Your task to perform on an android device: toggle improve location accuracy Image 0: 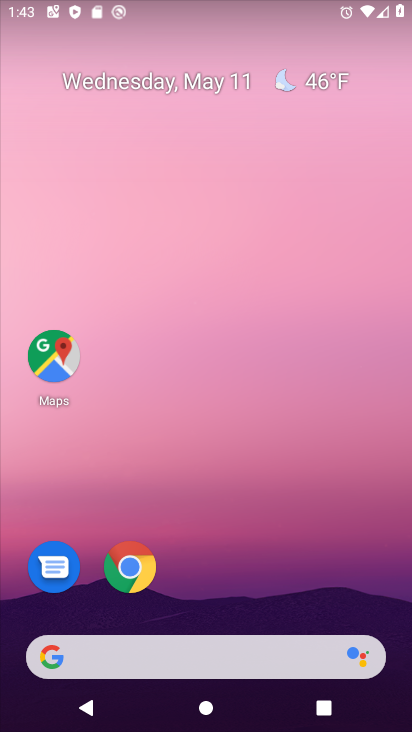
Step 0: drag from (224, 635) to (373, 15)
Your task to perform on an android device: toggle improve location accuracy Image 1: 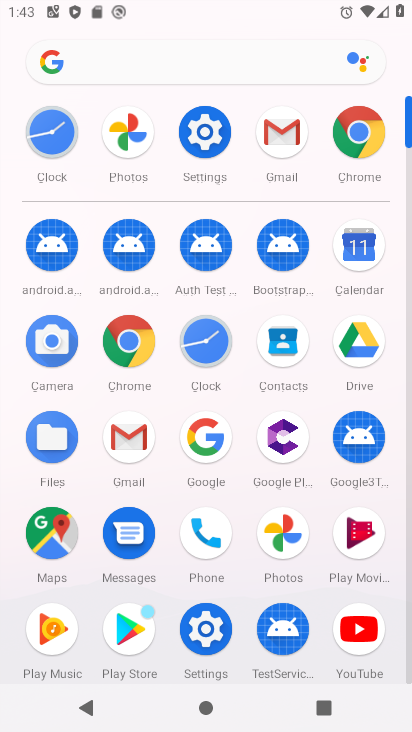
Step 1: click (191, 132)
Your task to perform on an android device: toggle improve location accuracy Image 2: 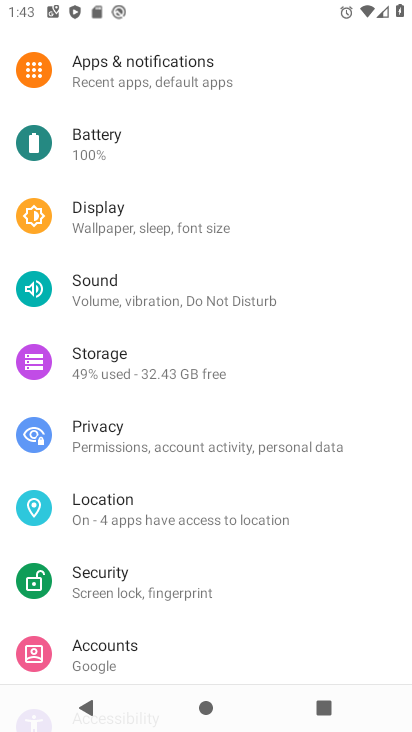
Step 2: click (148, 499)
Your task to perform on an android device: toggle improve location accuracy Image 3: 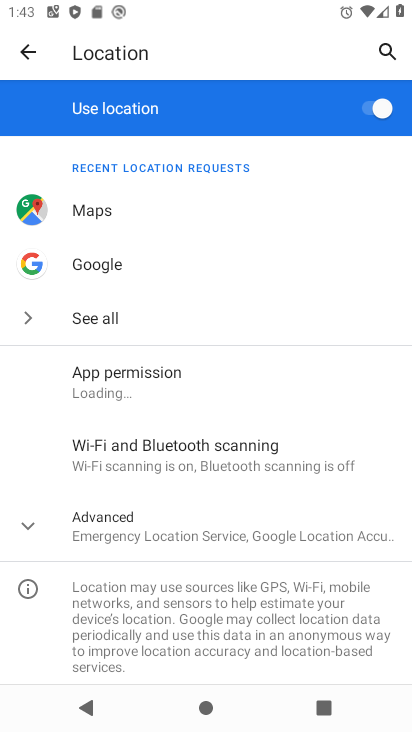
Step 3: click (145, 520)
Your task to perform on an android device: toggle improve location accuracy Image 4: 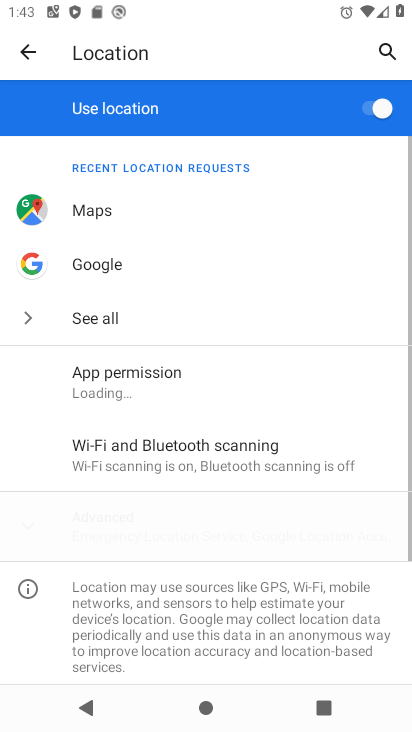
Step 4: drag from (145, 519) to (62, 122)
Your task to perform on an android device: toggle improve location accuracy Image 5: 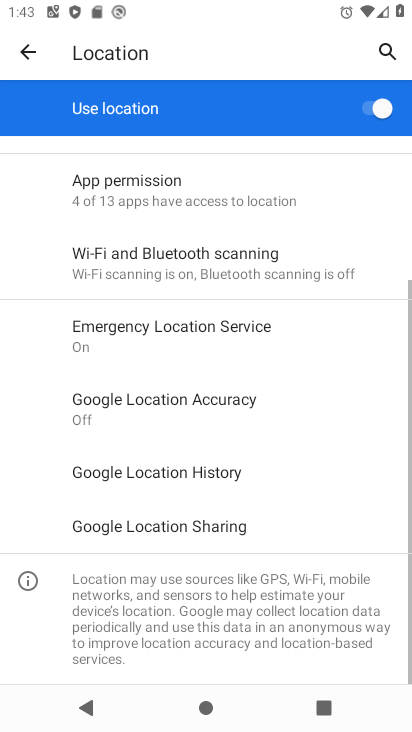
Step 5: click (197, 393)
Your task to perform on an android device: toggle improve location accuracy Image 6: 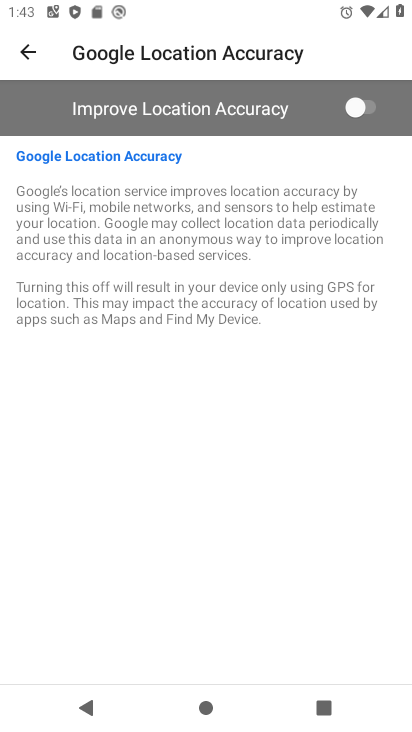
Step 6: click (366, 111)
Your task to perform on an android device: toggle improve location accuracy Image 7: 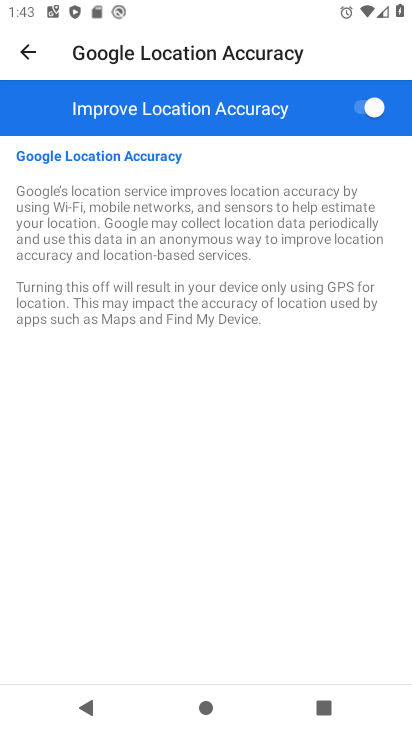
Step 7: task complete